Your task to perform on an android device: Open calendar and show me the first week of next month Image 0: 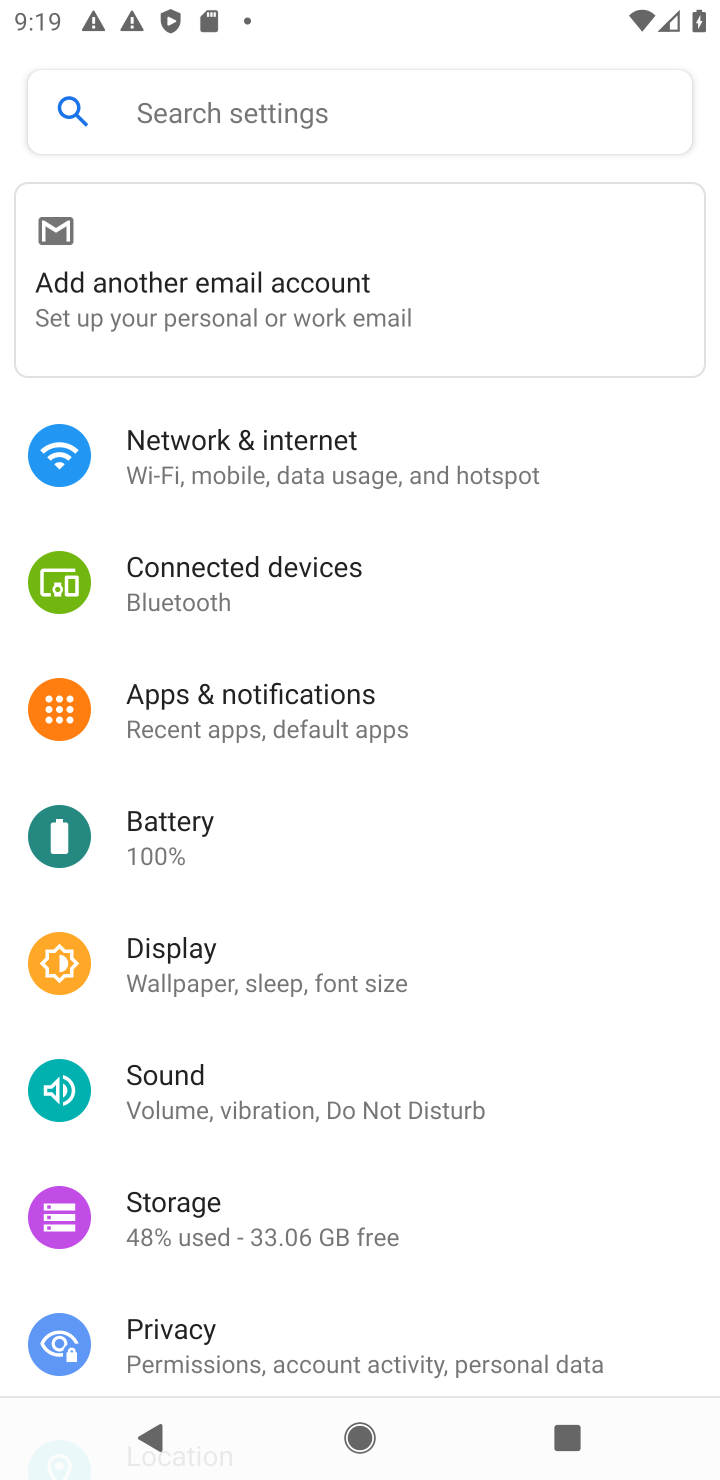
Step 0: press home button
Your task to perform on an android device: Open calendar and show me the first week of next month Image 1: 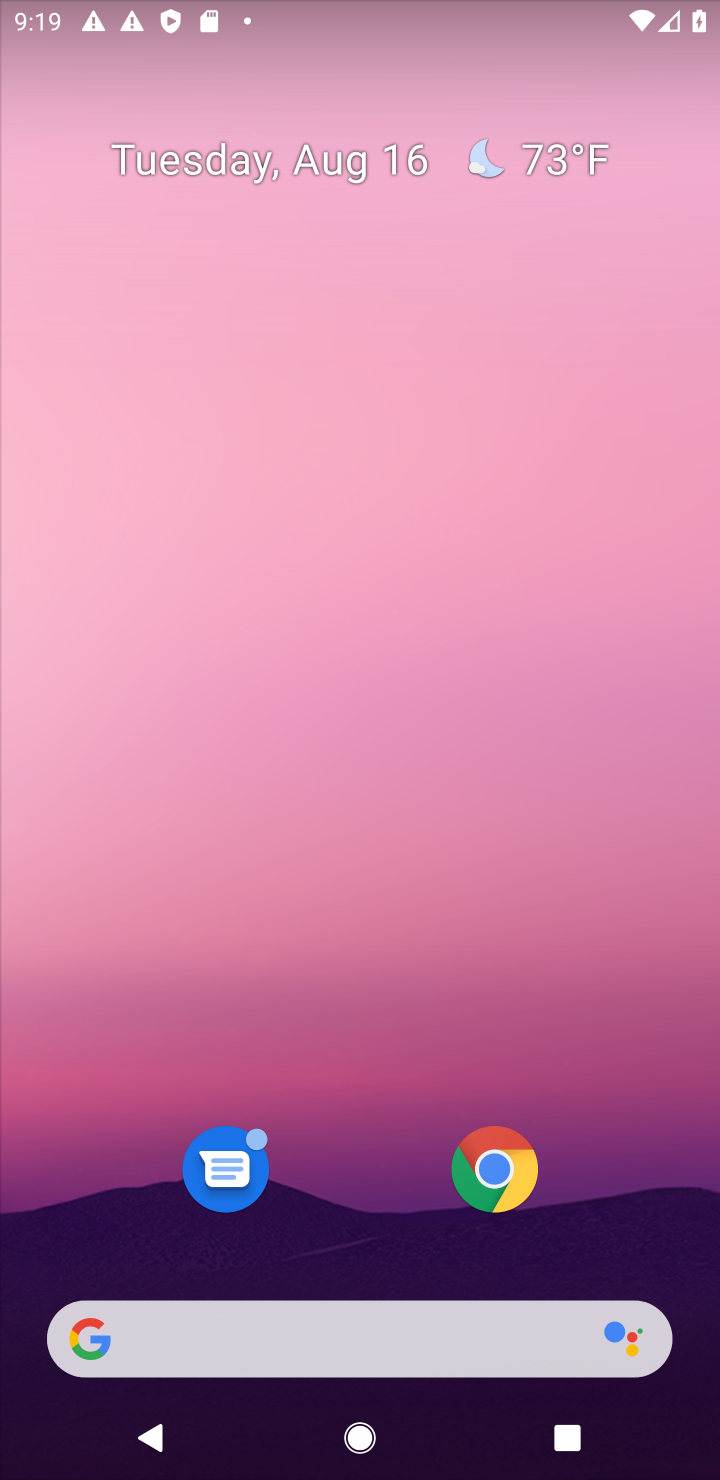
Step 1: click (566, 135)
Your task to perform on an android device: Open calendar and show me the first week of next month Image 2: 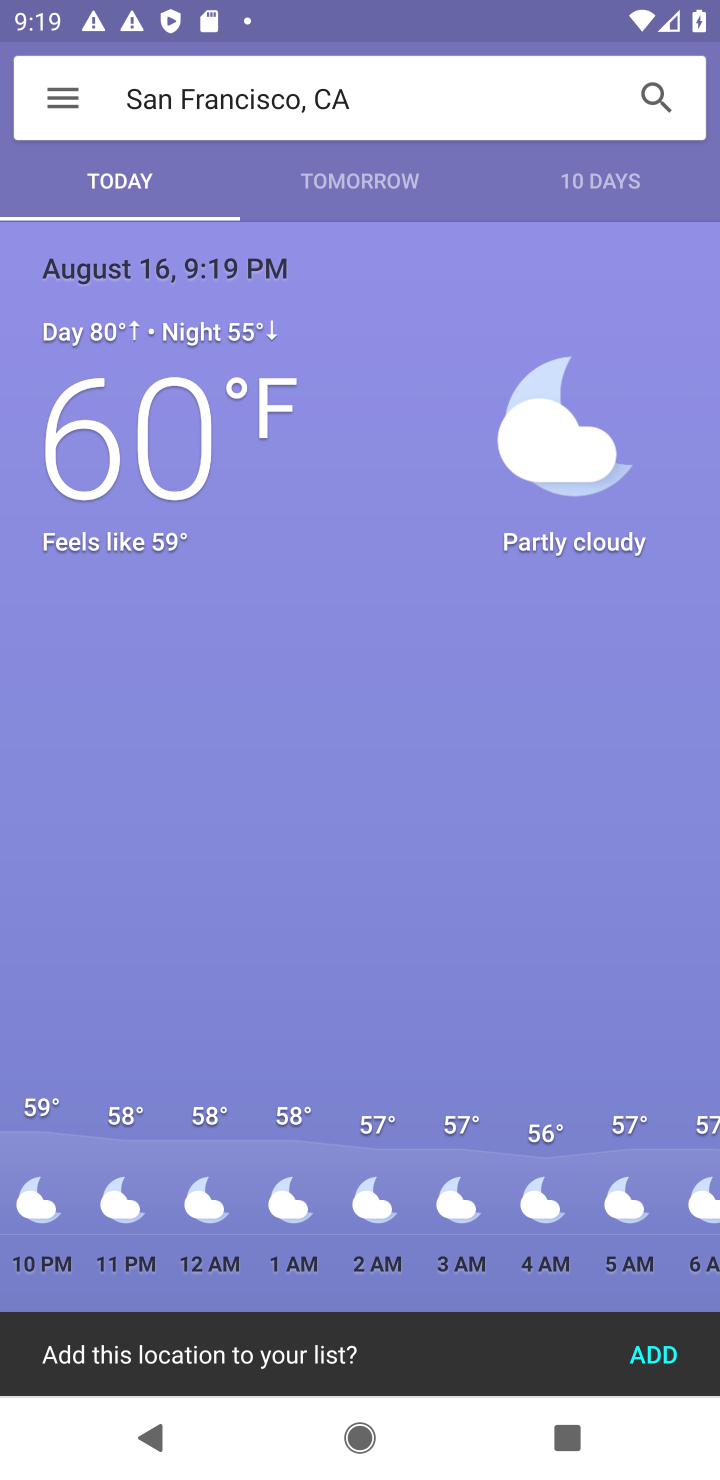
Step 2: press back button
Your task to perform on an android device: Open calendar and show me the first week of next month Image 3: 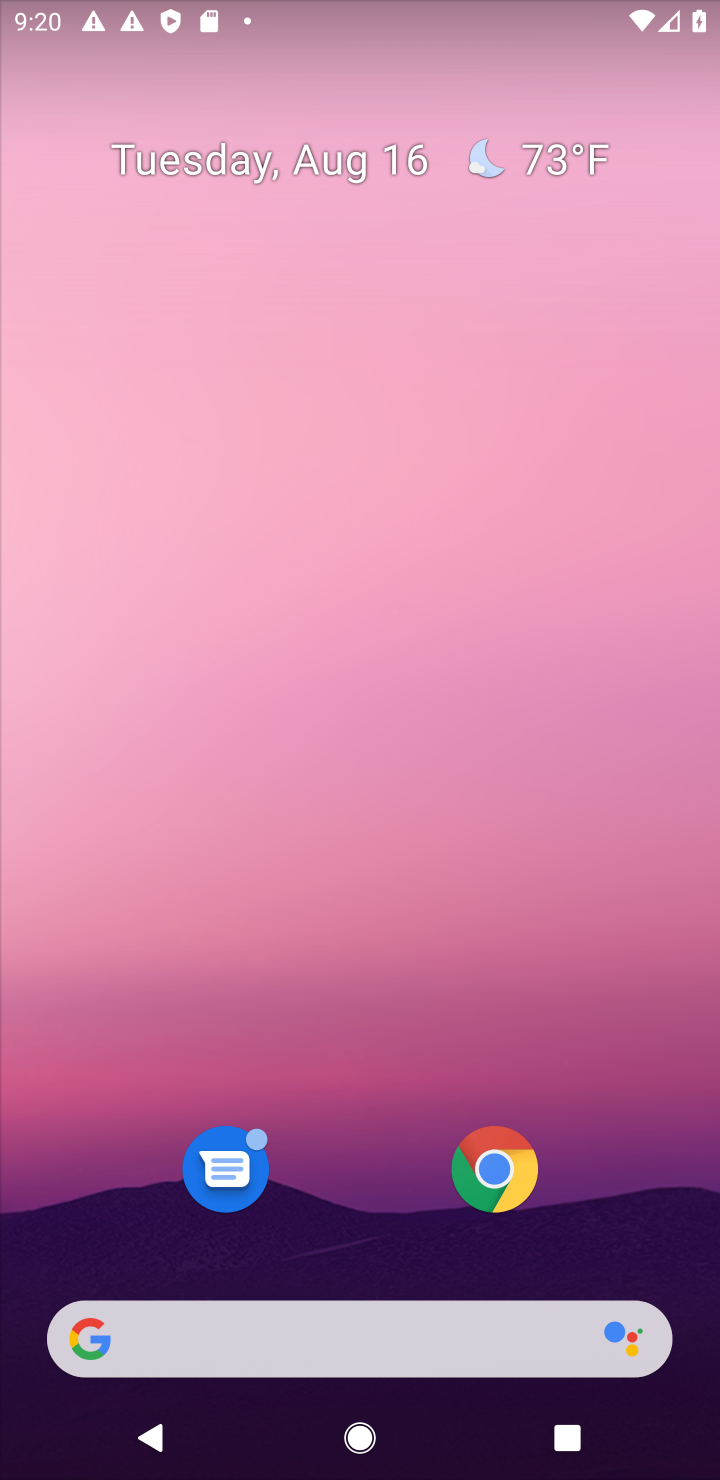
Step 3: drag from (398, 561) to (412, 340)
Your task to perform on an android device: Open calendar and show me the first week of next month Image 4: 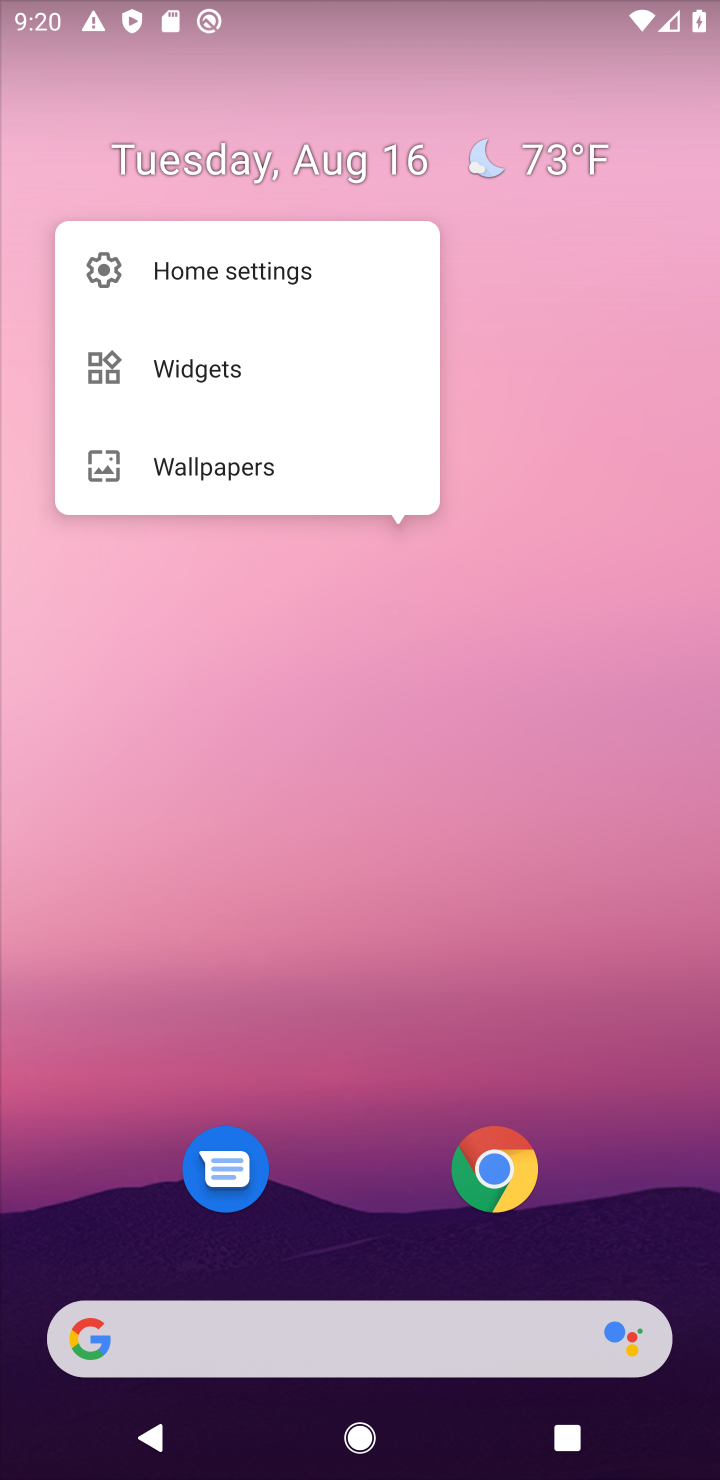
Step 4: drag from (340, 1231) to (555, 315)
Your task to perform on an android device: Open calendar and show me the first week of next month Image 5: 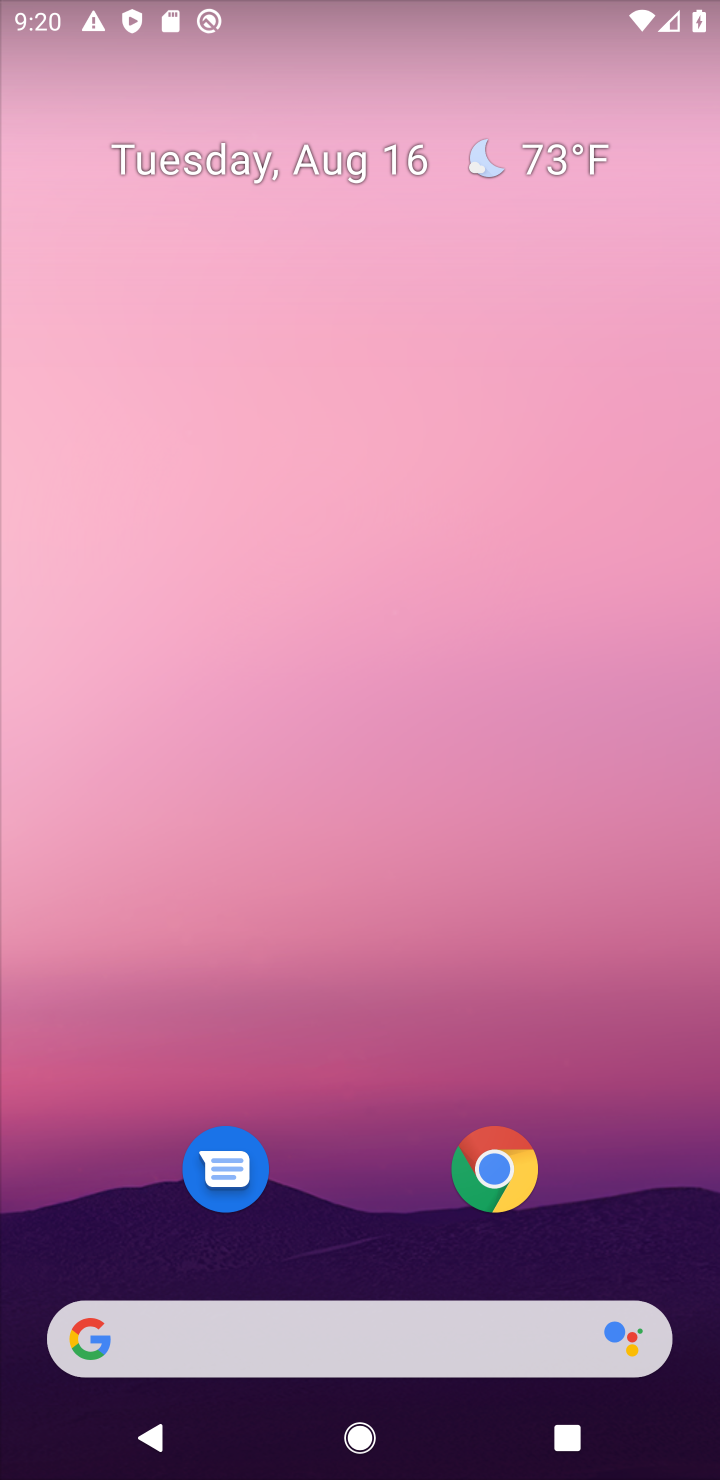
Step 5: drag from (288, 1246) to (293, 75)
Your task to perform on an android device: Open calendar and show me the first week of next month Image 6: 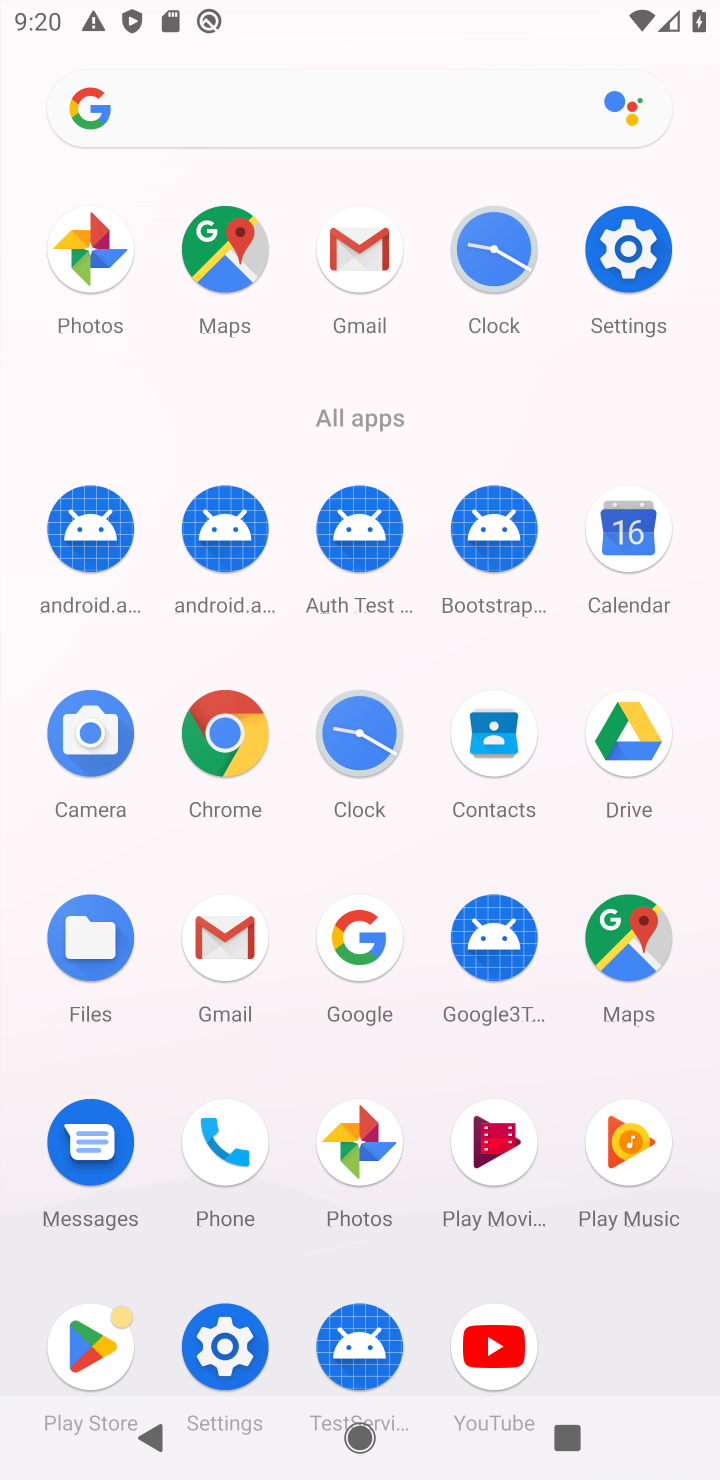
Step 6: click (647, 543)
Your task to perform on an android device: Open calendar and show me the first week of next month Image 7: 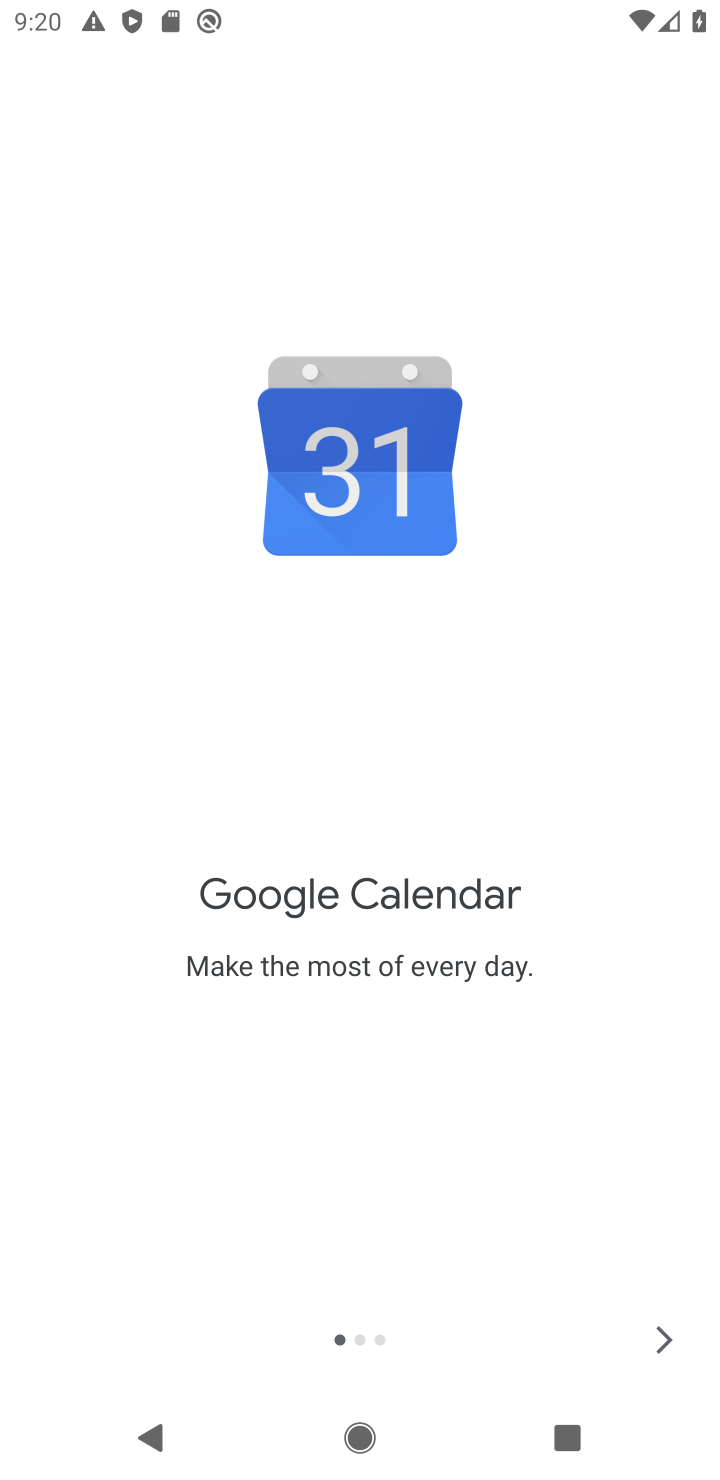
Step 7: click (647, 543)
Your task to perform on an android device: Open calendar and show me the first week of next month Image 8: 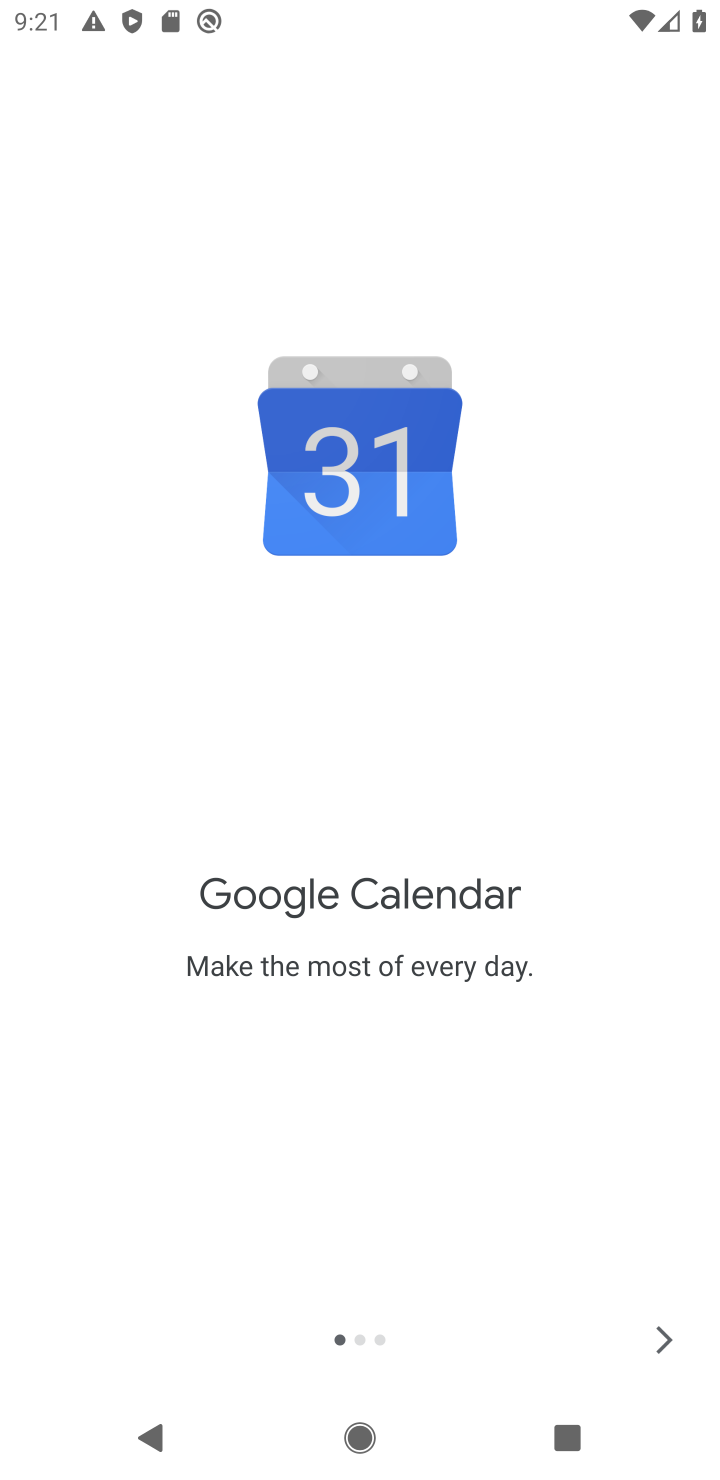
Step 8: click (664, 1350)
Your task to perform on an android device: Open calendar and show me the first week of next month Image 9: 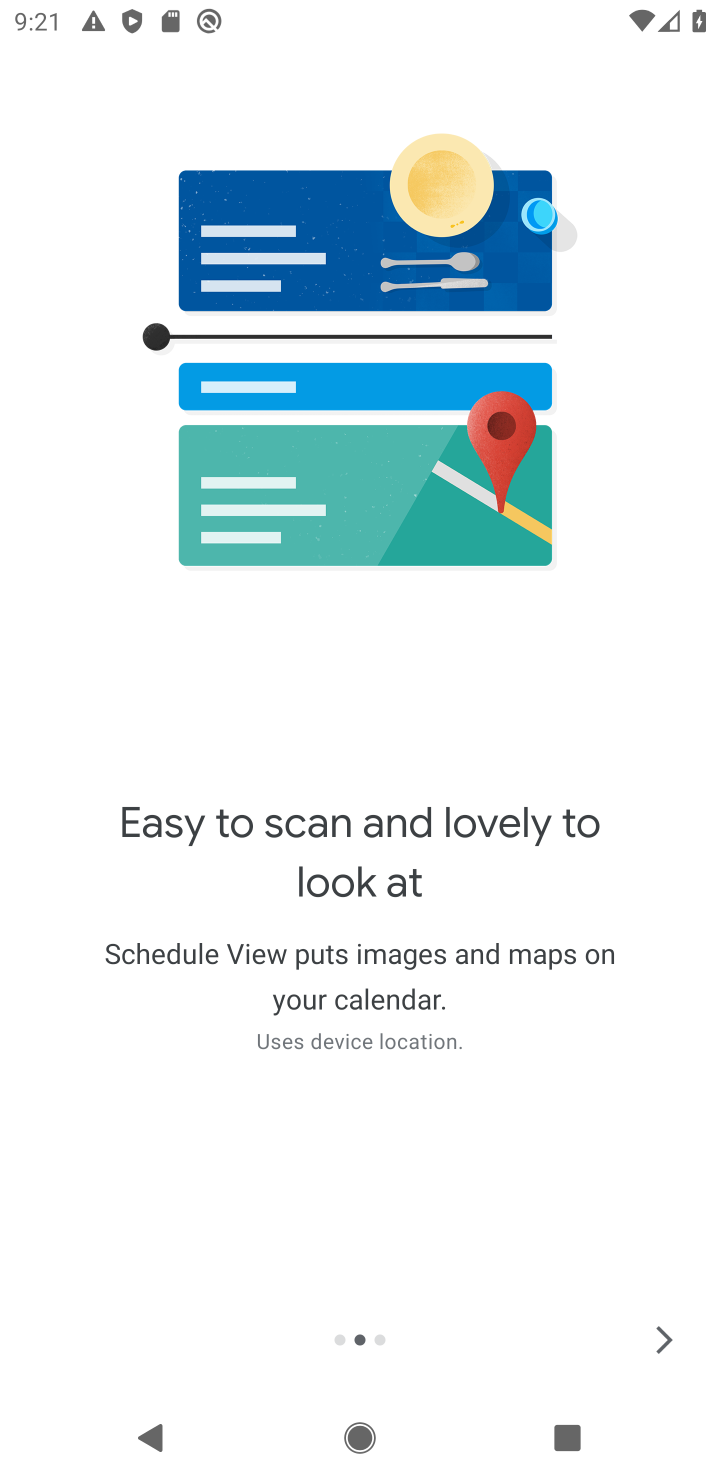
Step 9: click (664, 1350)
Your task to perform on an android device: Open calendar and show me the first week of next month Image 10: 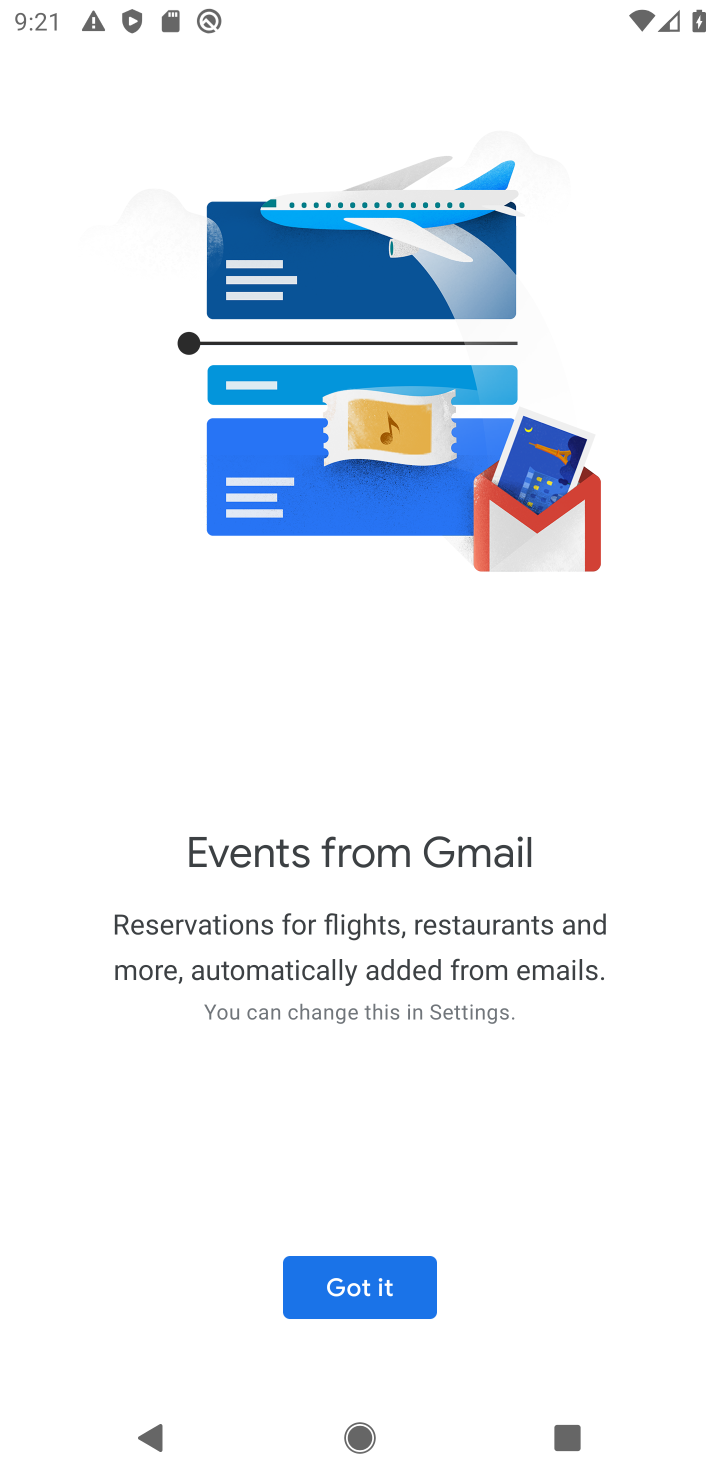
Step 10: click (339, 1262)
Your task to perform on an android device: Open calendar and show me the first week of next month Image 11: 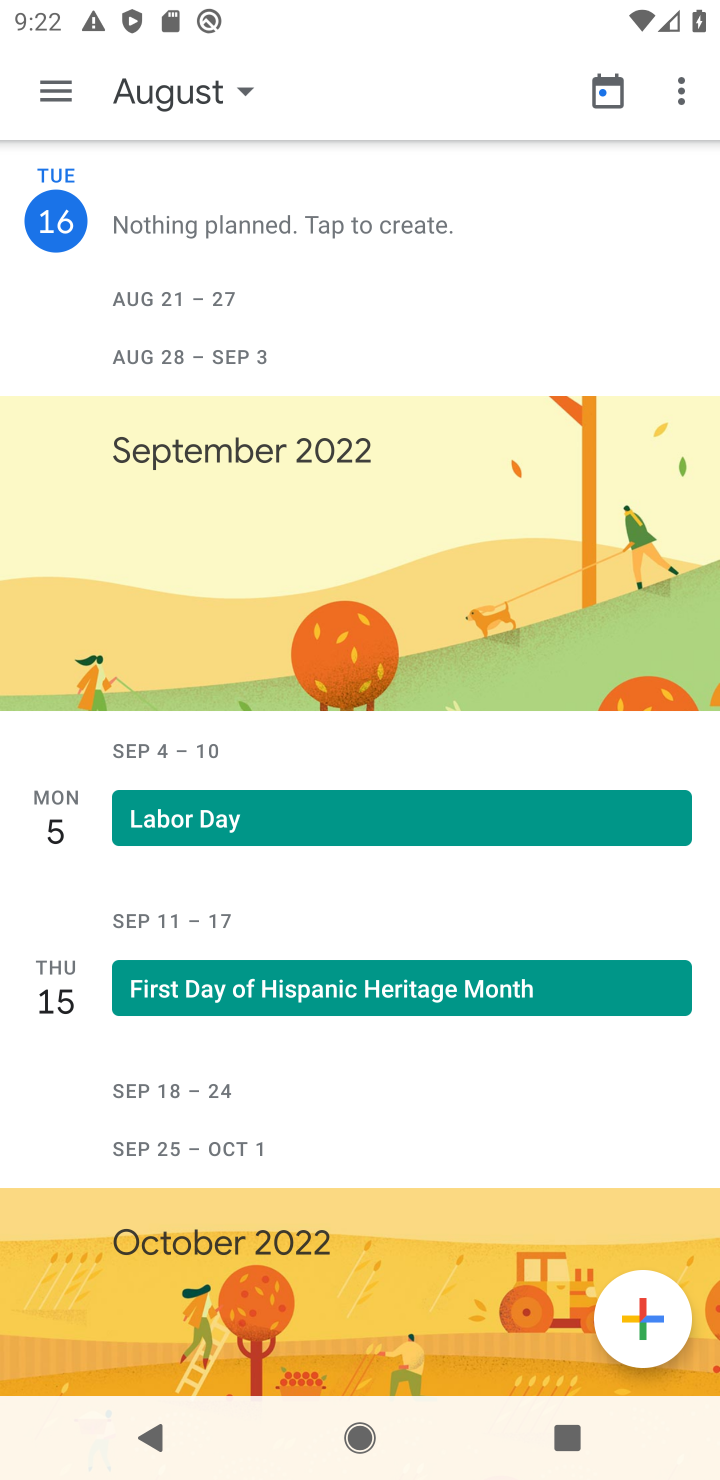
Step 11: click (44, 105)
Your task to perform on an android device: Open calendar and show me the first week of next month Image 12: 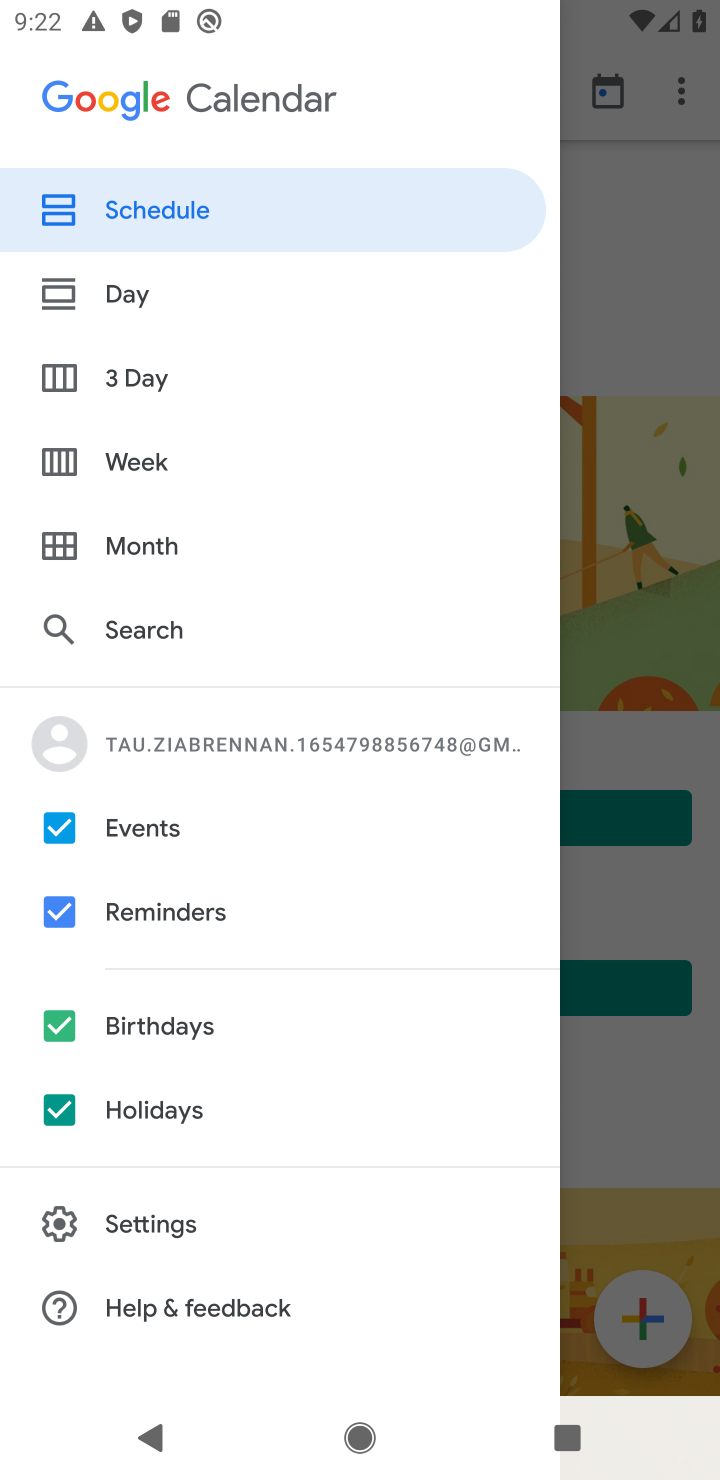
Step 12: click (137, 450)
Your task to perform on an android device: Open calendar and show me the first week of next month Image 13: 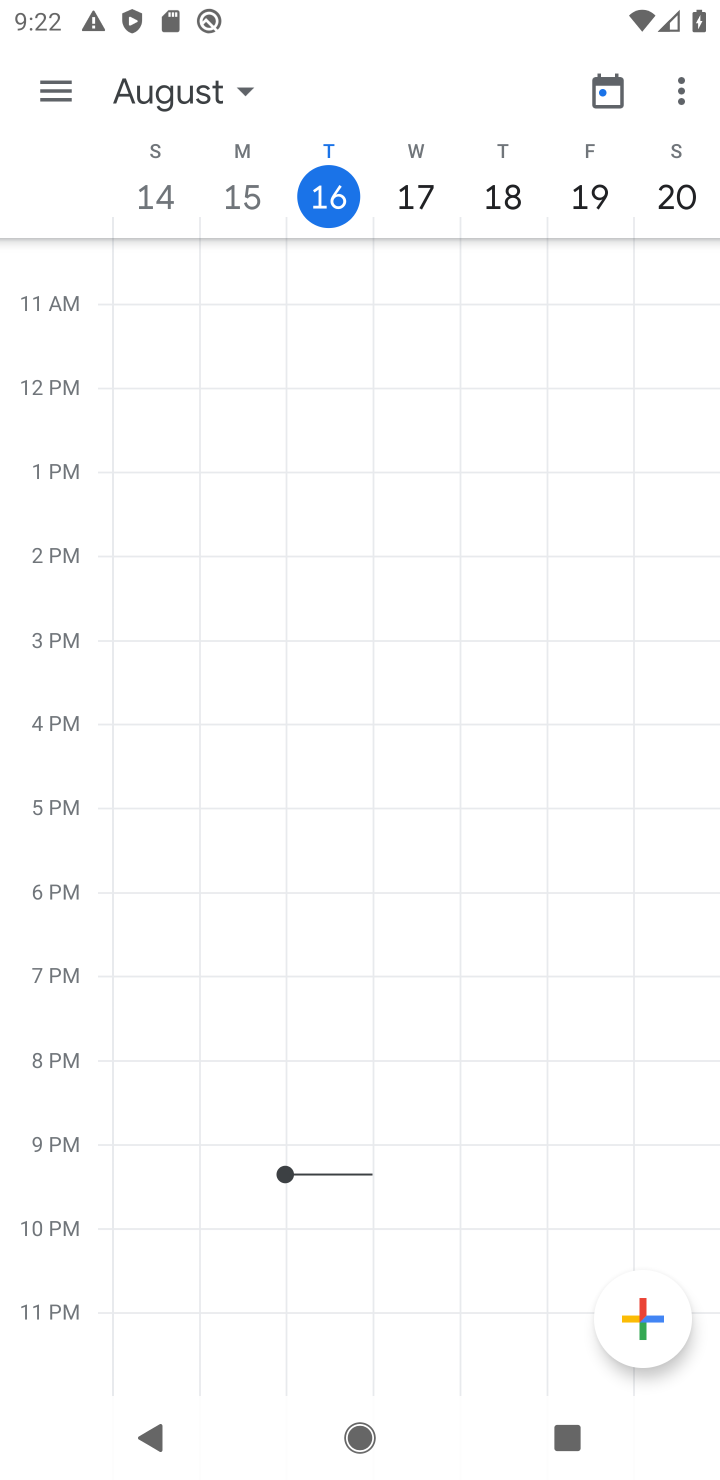
Step 13: click (203, 104)
Your task to perform on an android device: Open calendar and show me the first week of next month Image 14: 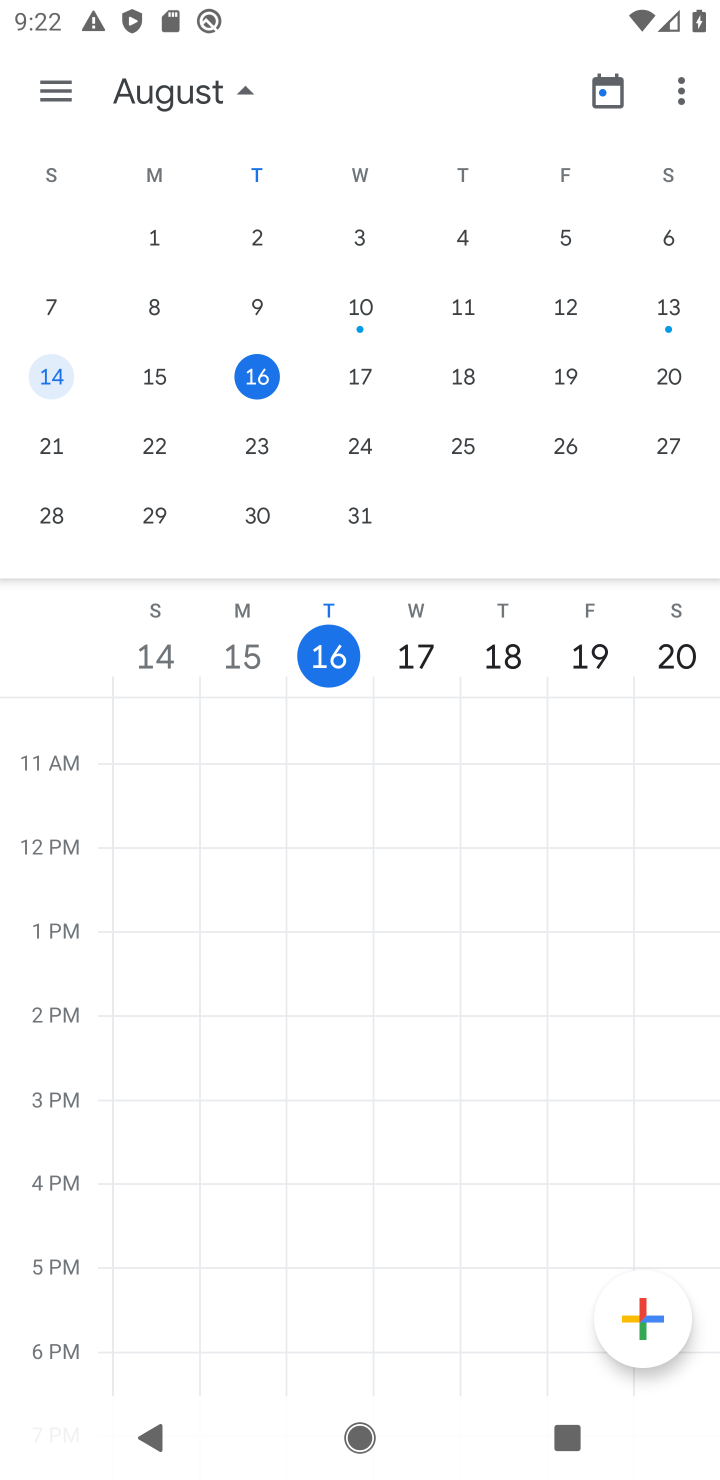
Step 14: task complete